Your task to perform on an android device: set an alarm Image 0: 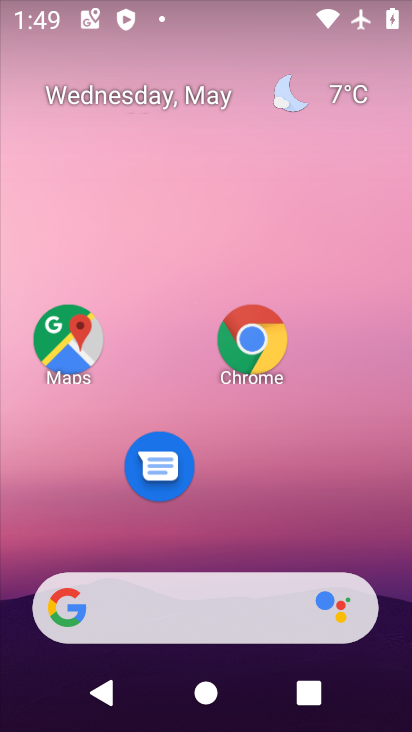
Step 0: drag from (204, 614) to (265, 110)
Your task to perform on an android device: set an alarm Image 1: 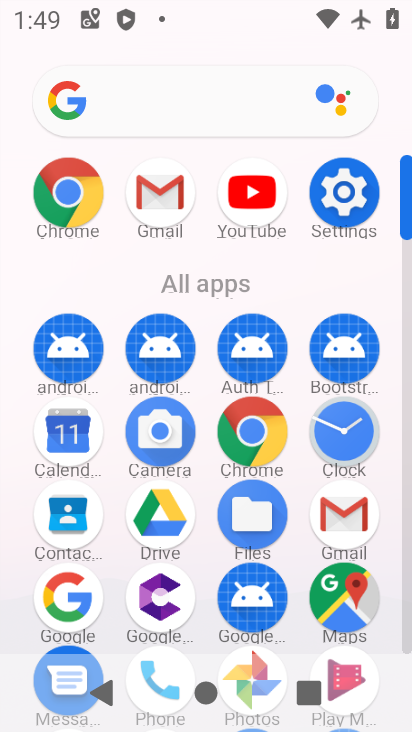
Step 1: drag from (201, 587) to (213, 299)
Your task to perform on an android device: set an alarm Image 2: 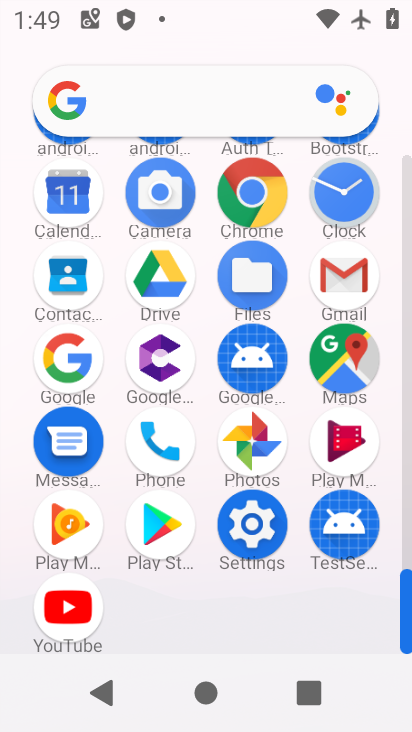
Step 2: click (351, 208)
Your task to perform on an android device: set an alarm Image 3: 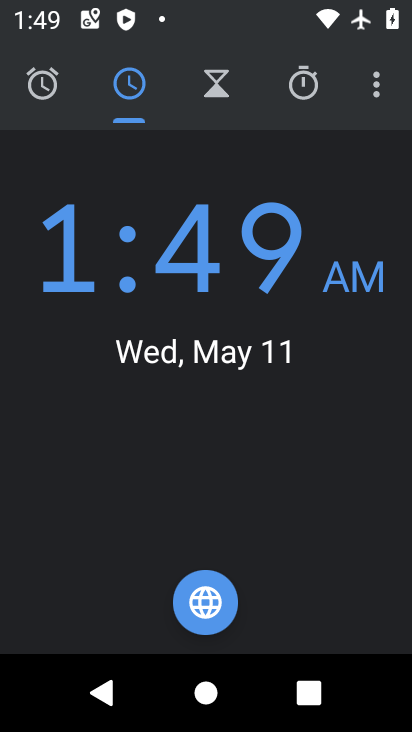
Step 3: click (59, 84)
Your task to perform on an android device: set an alarm Image 4: 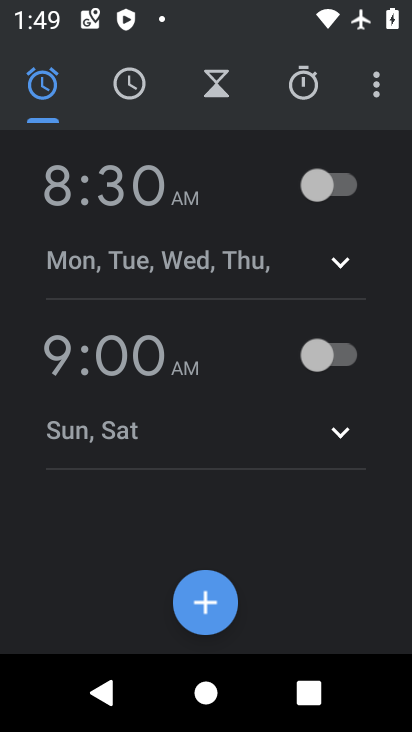
Step 4: click (119, 180)
Your task to perform on an android device: set an alarm Image 5: 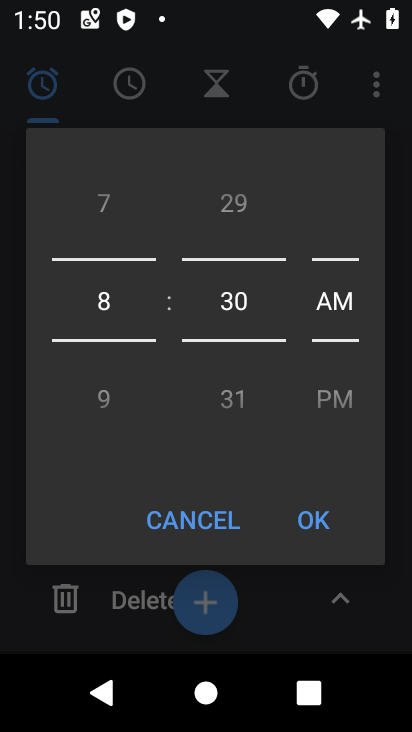
Step 5: drag from (119, 385) to (147, 249)
Your task to perform on an android device: set an alarm Image 6: 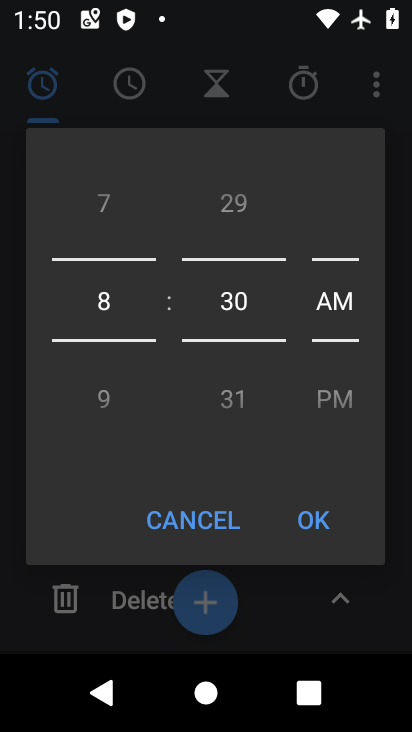
Step 6: drag from (102, 421) to (144, 248)
Your task to perform on an android device: set an alarm Image 7: 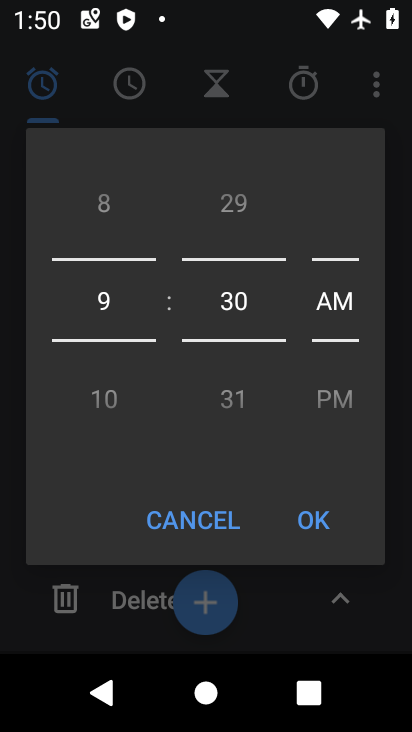
Step 7: drag from (254, 413) to (285, 255)
Your task to perform on an android device: set an alarm Image 8: 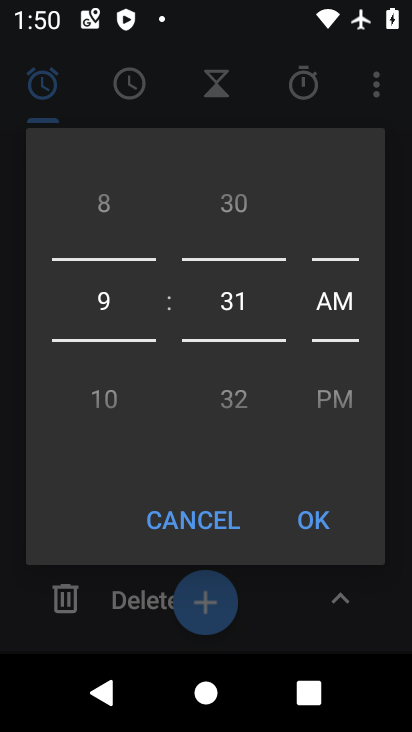
Step 8: click (327, 525)
Your task to perform on an android device: set an alarm Image 9: 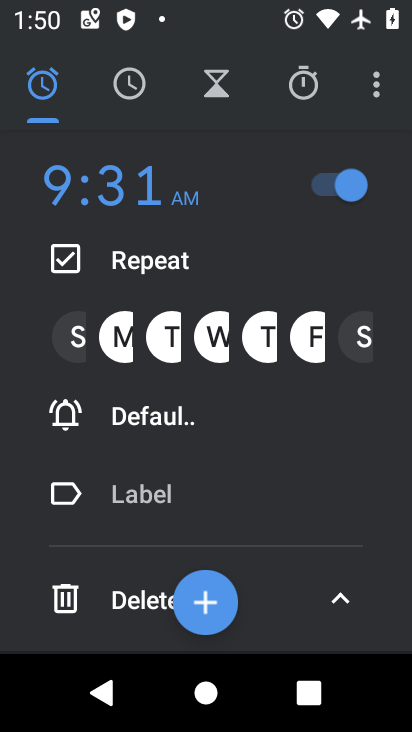
Step 9: task complete